Your task to perform on an android device: Go to eBay Image 0: 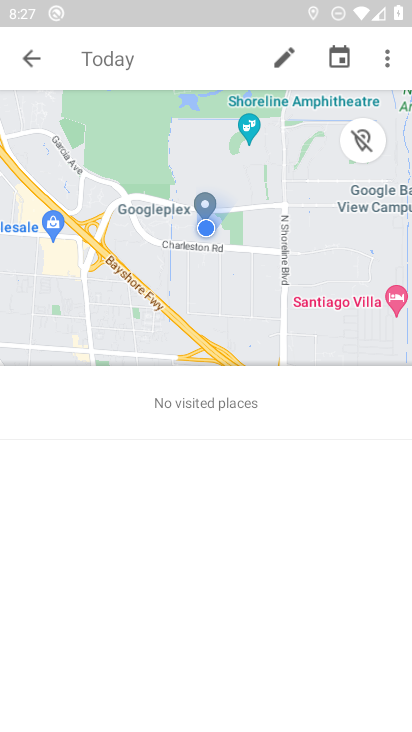
Step 0: press home button
Your task to perform on an android device: Go to eBay Image 1: 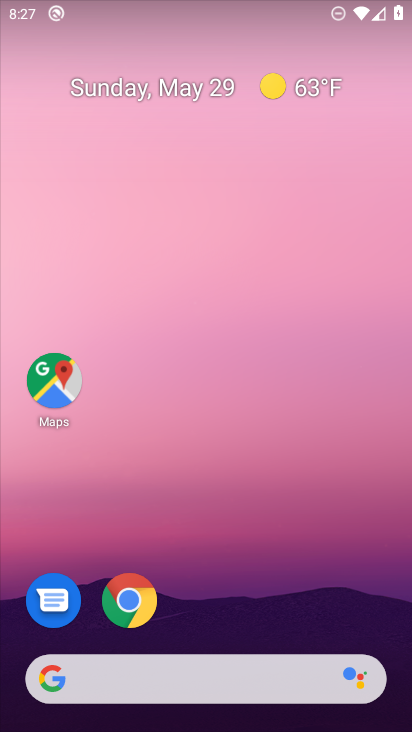
Step 1: click (133, 626)
Your task to perform on an android device: Go to eBay Image 2: 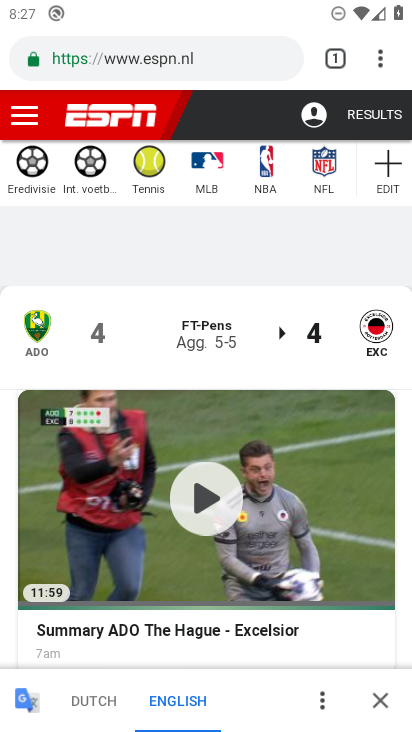
Step 2: click (338, 73)
Your task to perform on an android device: Go to eBay Image 3: 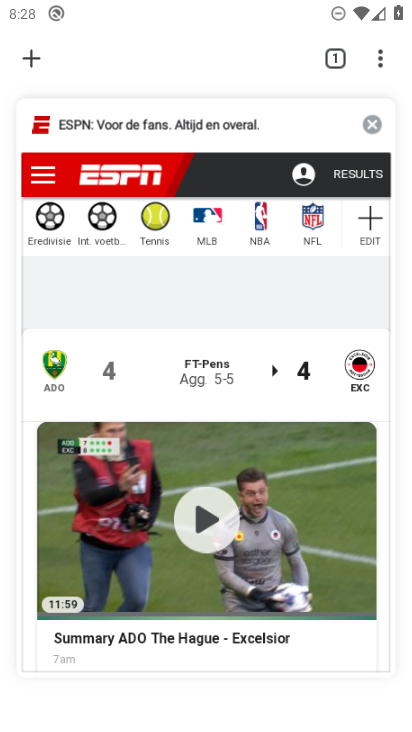
Step 3: click (376, 131)
Your task to perform on an android device: Go to eBay Image 4: 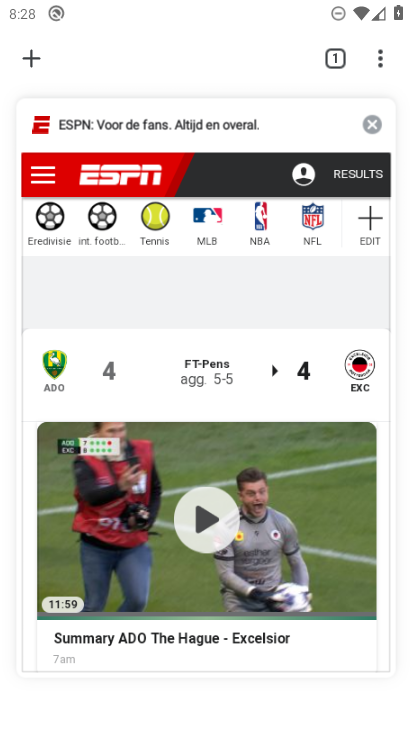
Step 4: click (376, 131)
Your task to perform on an android device: Go to eBay Image 5: 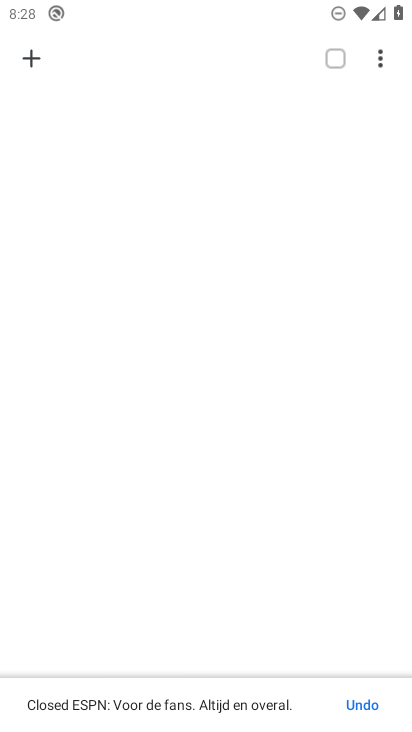
Step 5: click (12, 50)
Your task to perform on an android device: Go to eBay Image 6: 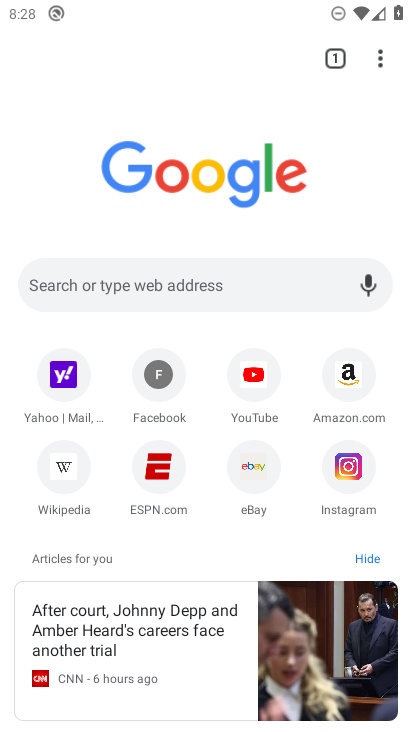
Step 6: click (250, 472)
Your task to perform on an android device: Go to eBay Image 7: 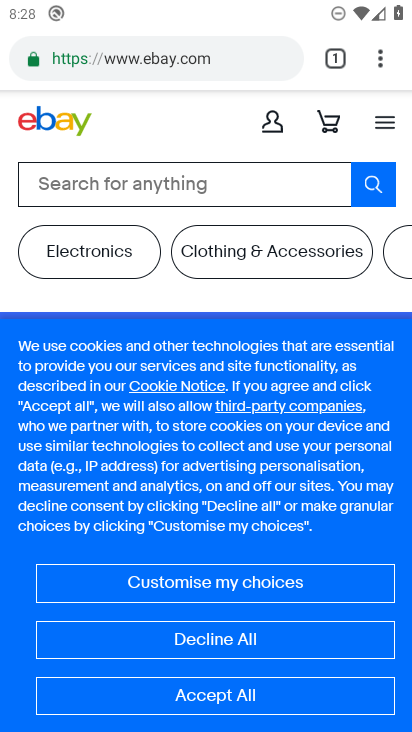
Step 7: drag from (368, 580) to (346, 213)
Your task to perform on an android device: Go to eBay Image 8: 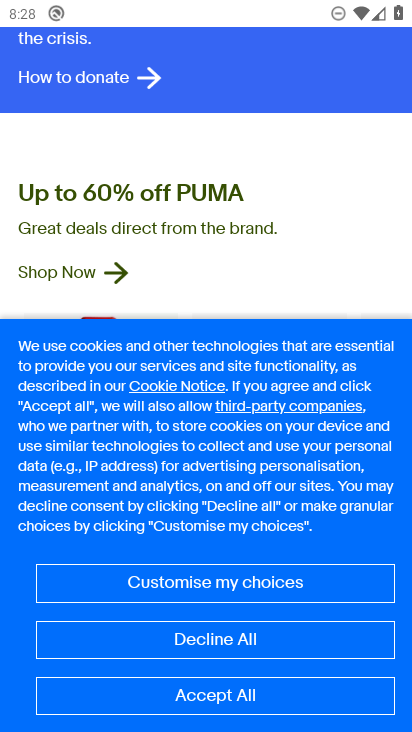
Step 8: click (235, 708)
Your task to perform on an android device: Go to eBay Image 9: 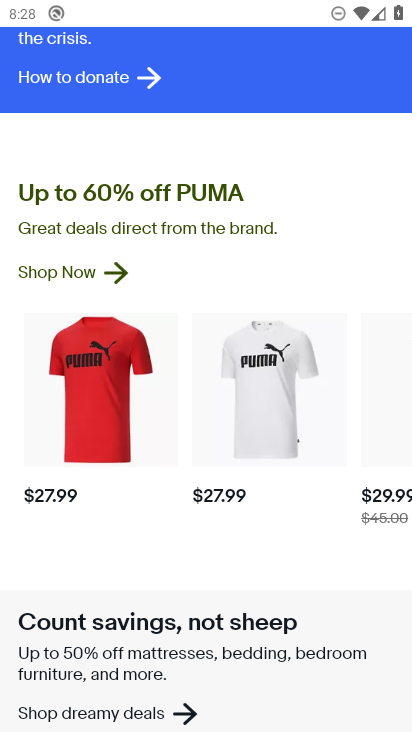
Step 9: drag from (360, 647) to (393, 288)
Your task to perform on an android device: Go to eBay Image 10: 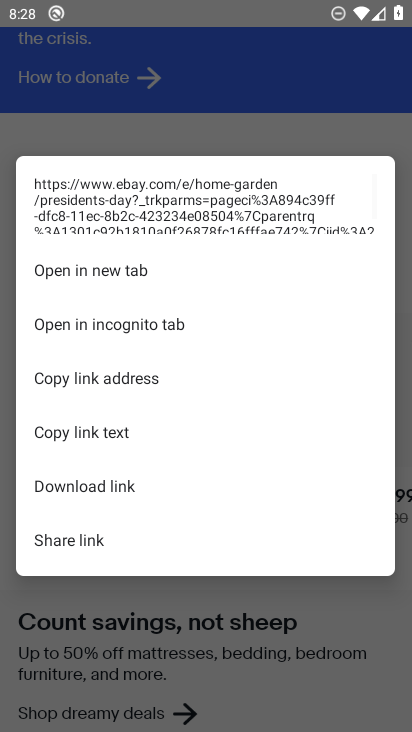
Step 10: click (345, 672)
Your task to perform on an android device: Go to eBay Image 11: 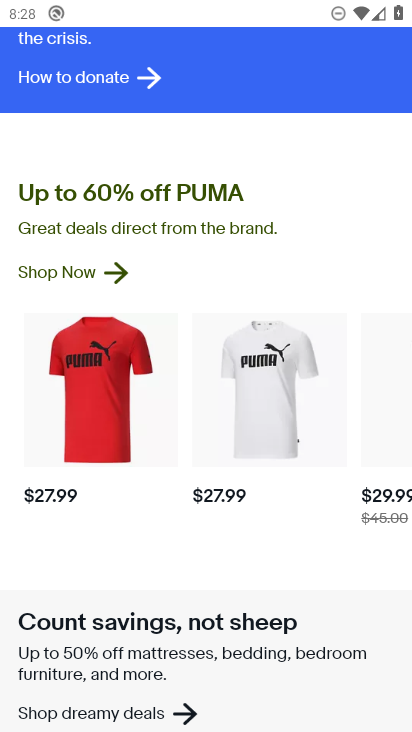
Step 11: task complete